Your task to perform on an android device: Go to internet settings Image 0: 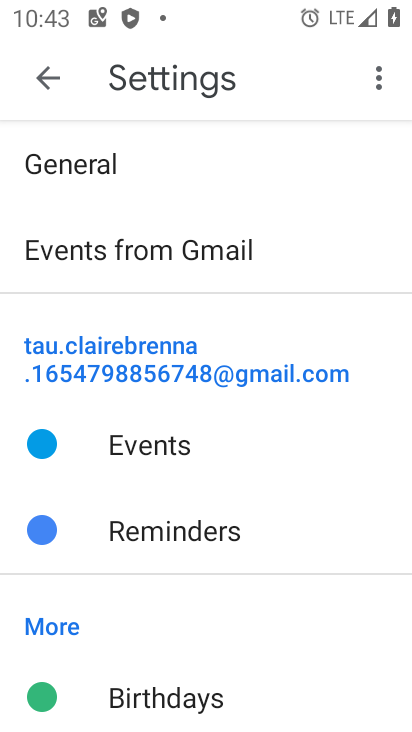
Step 0: press home button
Your task to perform on an android device: Go to internet settings Image 1: 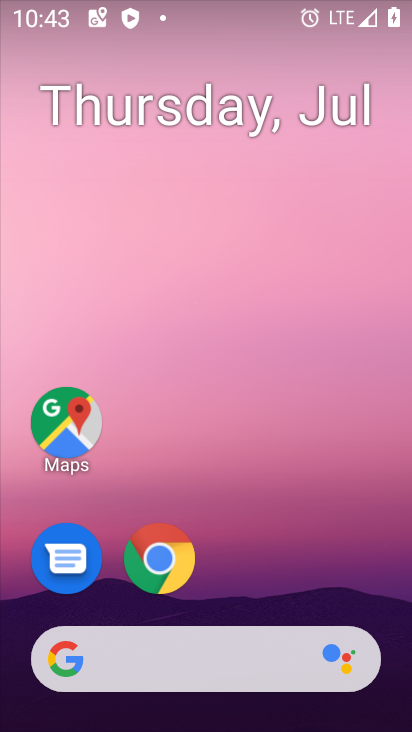
Step 1: drag from (338, 566) to (332, 60)
Your task to perform on an android device: Go to internet settings Image 2: 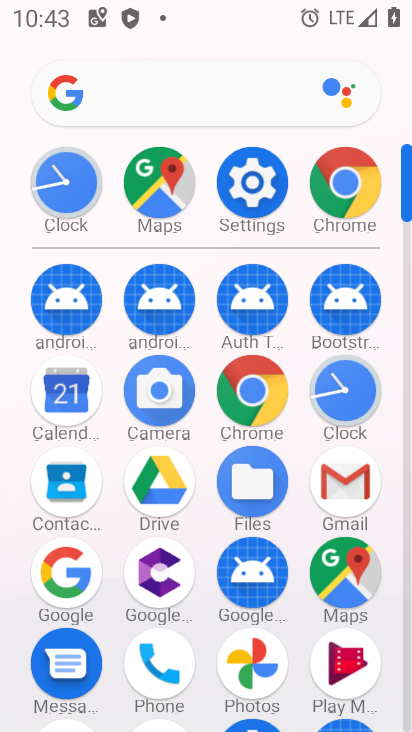
Step 2: click (268, 208)
Your task to perform on an android device: Go to internet settings Image 3: 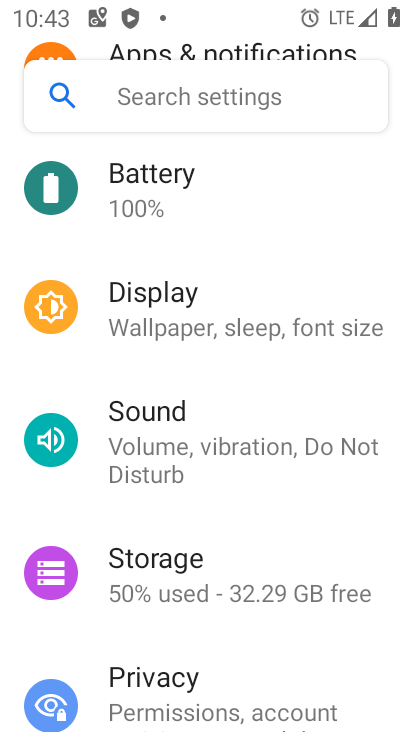
Step 3: drag from (323, 233) to (350, 343)
Your task to perform on an android device: Go to internet settings Image 4: 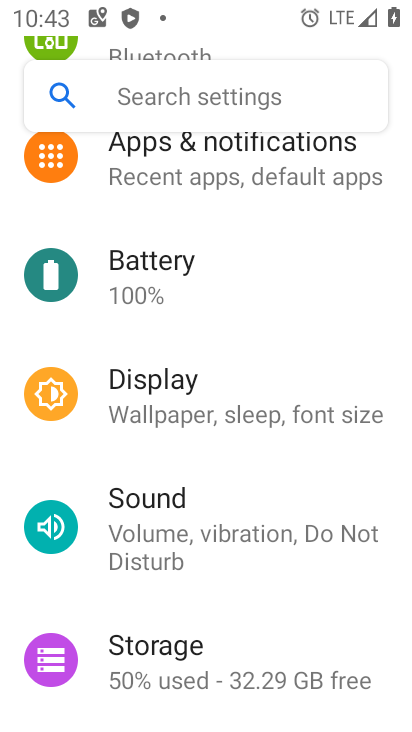
Step 4: drag from (342, 238) to (355, 389)
Your task to perform on an android device: Go to internet settings Image 5: 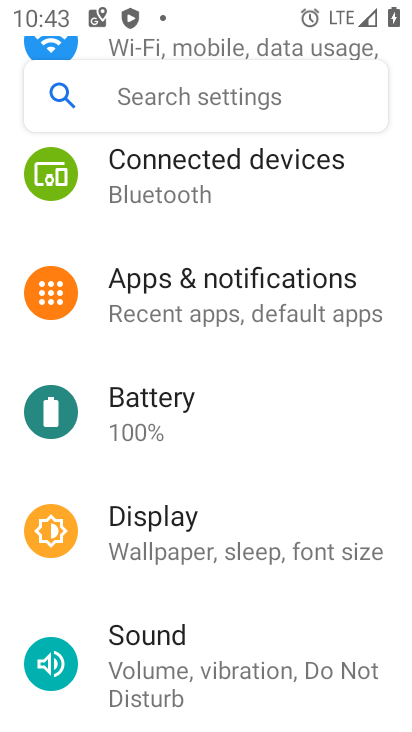
Step 5: drag from (337, 238) to (350, 368)
Your task to perform on an android device: Go to internet settings Image 6: 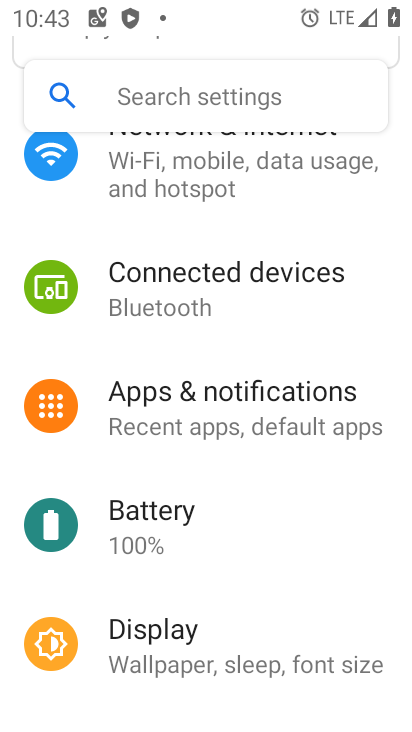
Step 6: drag from (359, 225) to (378, 349)
Your task to perform on an android device: Go to internet settings Image 7: 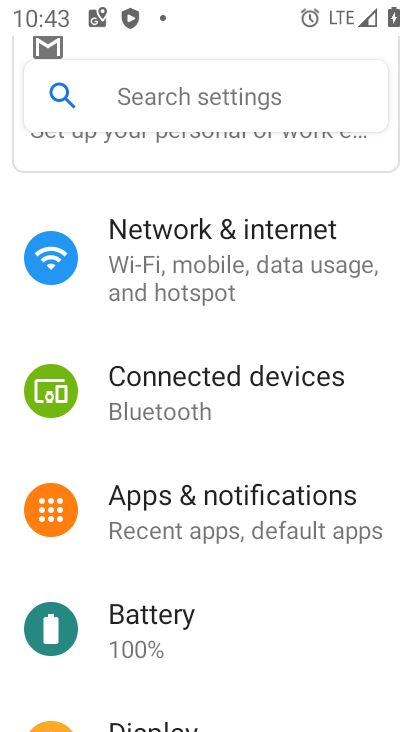
Step 7: drag from (364, 209) to (371, 420)
Your task to perform on an android device: Go to internet settings Image 8: 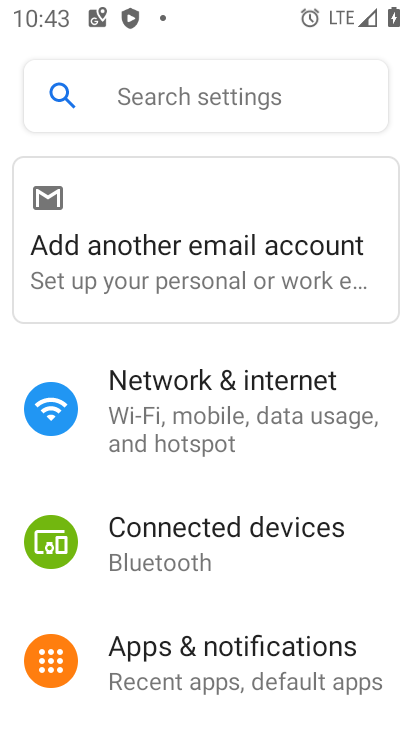
Step 8: click (271, 397)
Your task to perform on an android device: Go to internet settings Image 9: 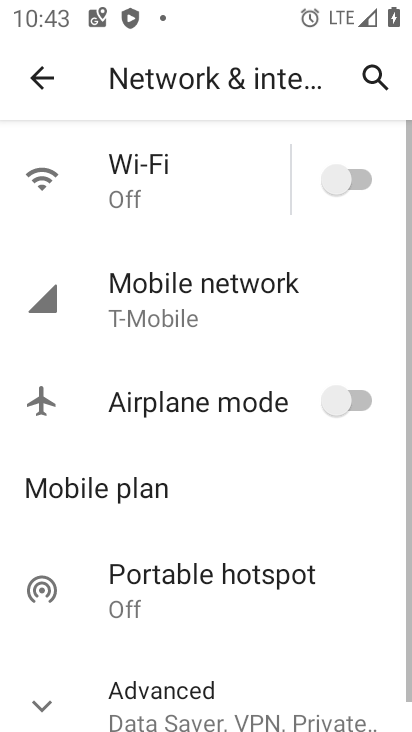
Step 9: task complete